Your task to perform on an android device: Open Wikipedia Image 0: 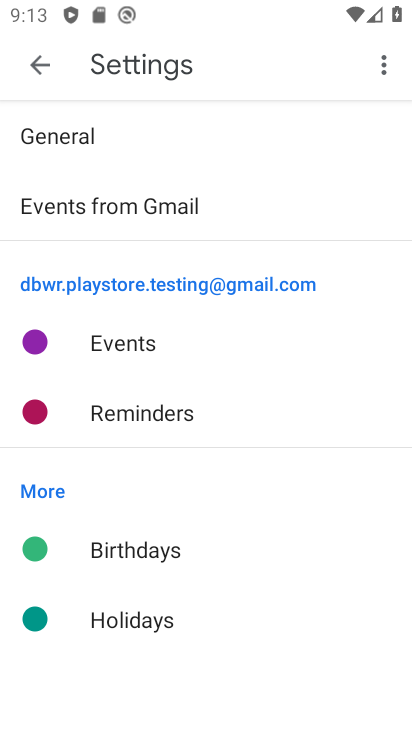
Step 0: press home button
Your task to perform on an android device: Open Wikipedia Image 1: 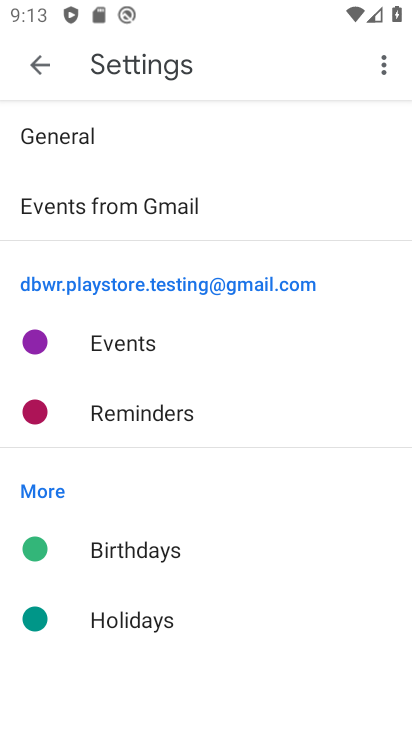
Step 1: press home button
Your task to perform on an android device: Open Wikipedia Image 2: 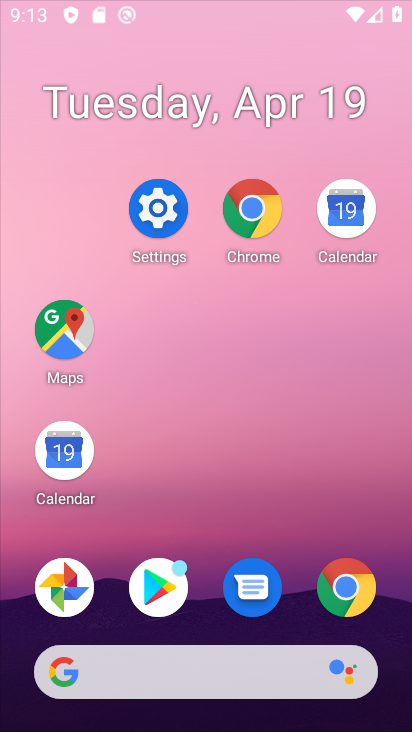
Step 2: press home button
Your task to perform on an android device: Open Wikipedia Image 3: 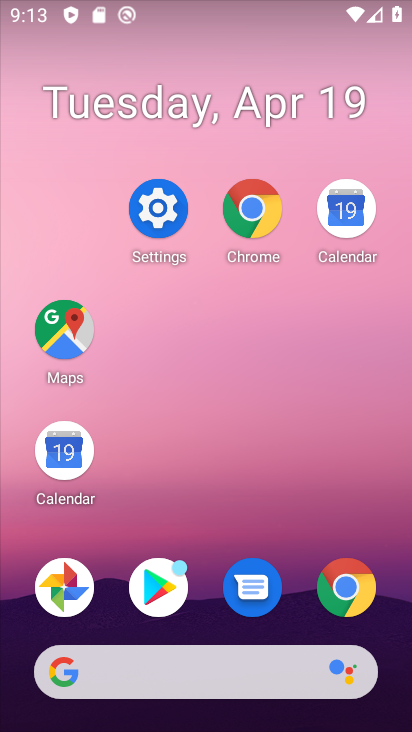
Step 3: press home button
Your task to perform on an android device: Open Wikipedia Image 4: 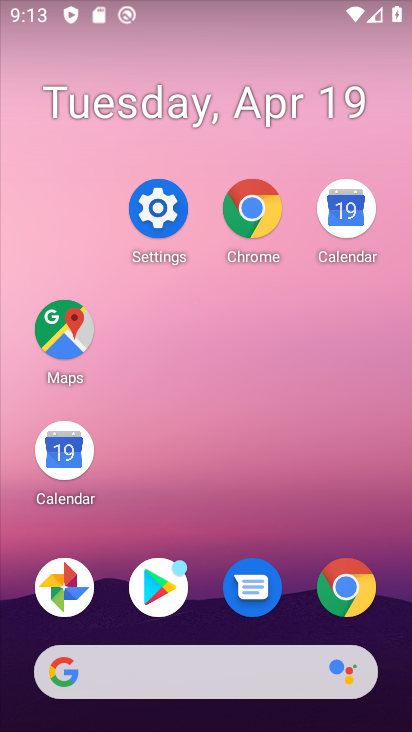
Step 4: drag from (240, 430) to (208, 177)
Your task to perform on an android device: Open Wikipedia Image 5: 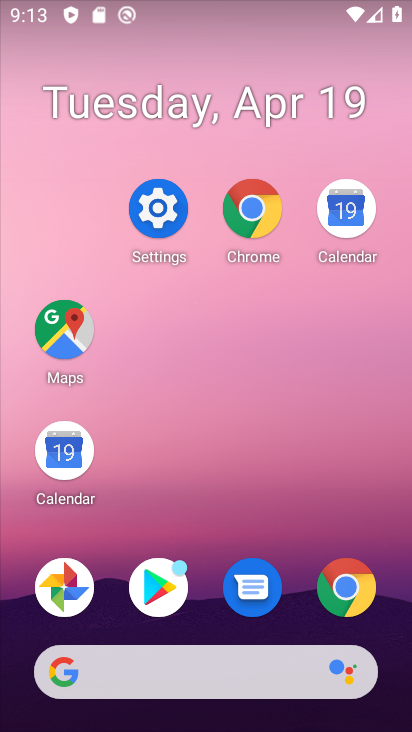
Step 5: drag from (202, 377) to (166, 233)
Your task to perform on an android device: Open Wikipedia Image 6: 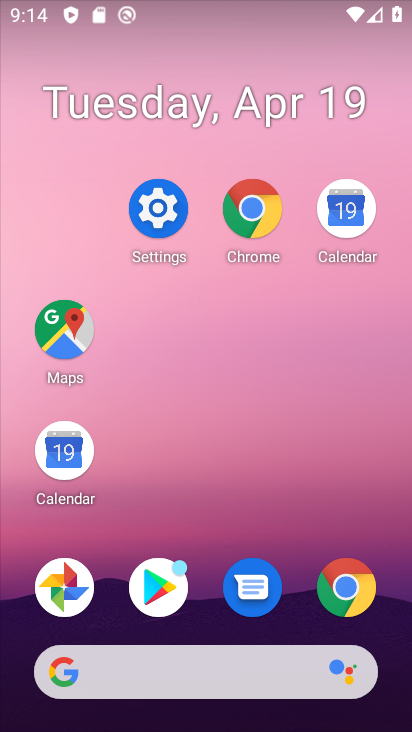
Step 6: click (255, 207)
Your task to perform on an android device: Open Wikipedia Image 7: 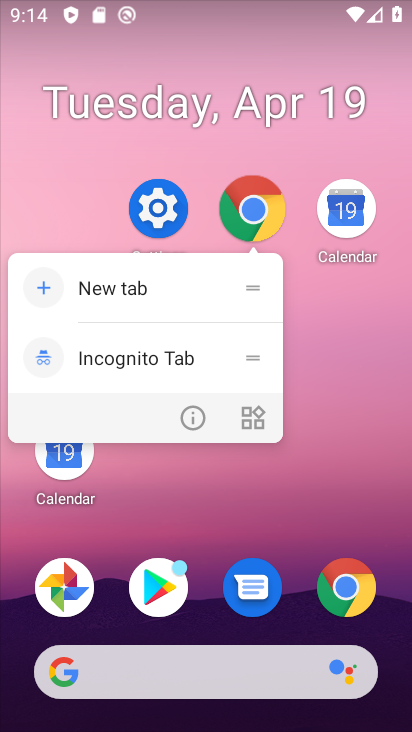
Step 7: click (255, 207)
Your task to perform on an android device: Open Wikipedia Image 8: 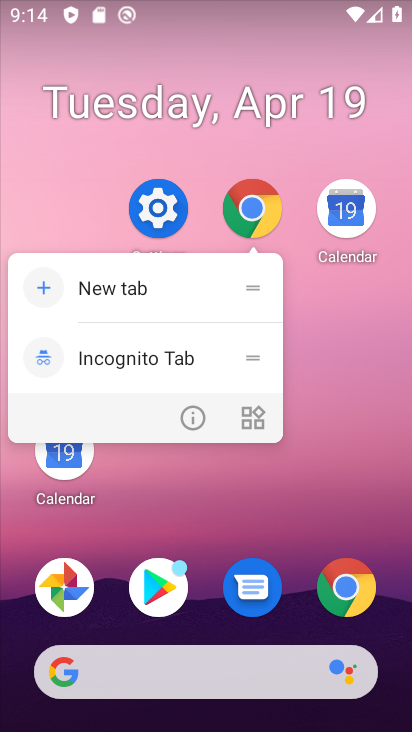
Step 8: click (258, 203)
Your task to perform on an android device: Open Wikipedia Image 9: 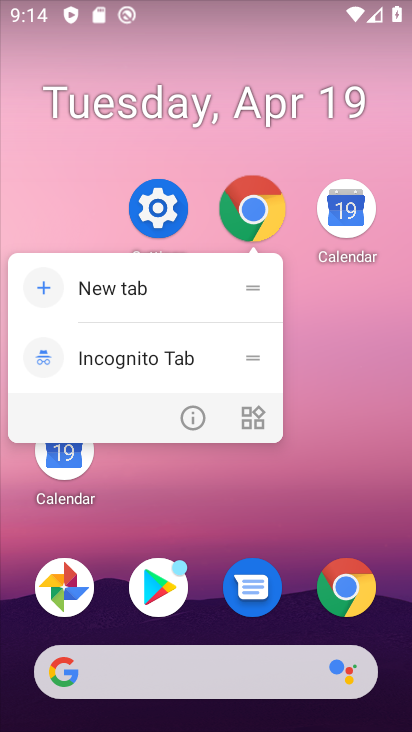
Step 9: click (261, 202)
Your task to perform on an android device: Open Wikipedia Image 10: 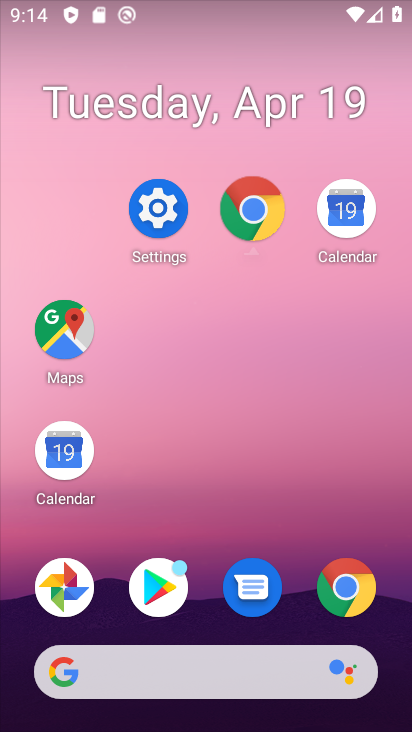
Step 10: click (261, 202)
Your task to perform on an android device: Open Wikipedia Image 11: 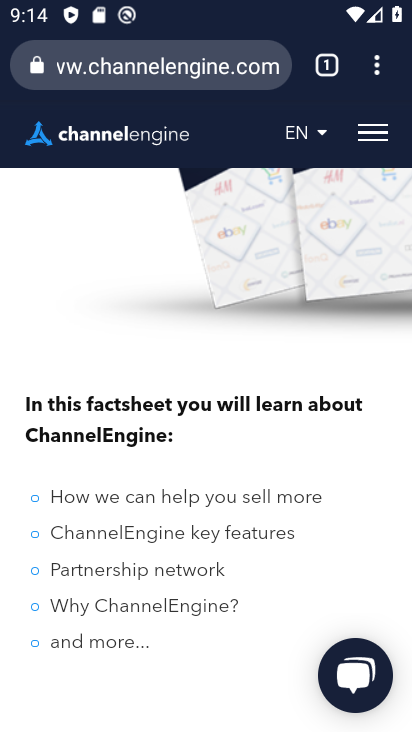
Step 11: press back button
Your task to perform on an android device: Open Wikipedia Image 12: 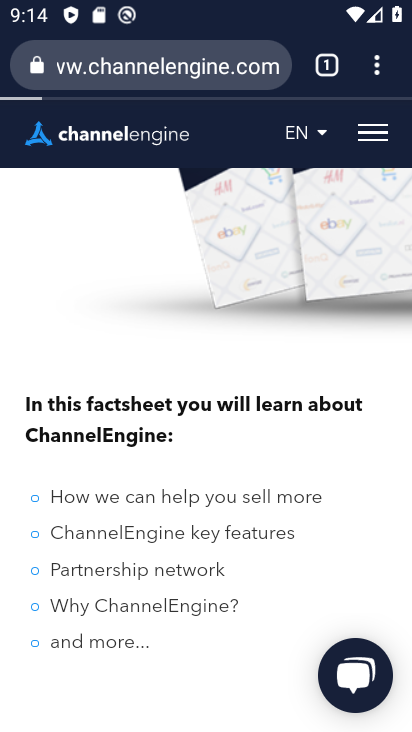
Step 12: press back button
Your task to perform on an android device: Open Wikipedia Image 13: 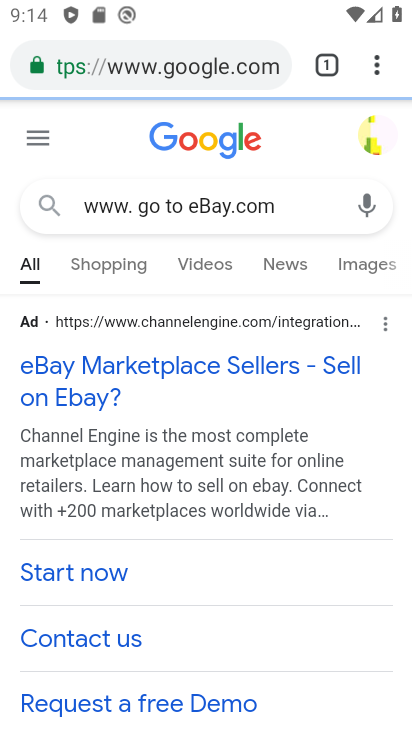
Step 13: press back button
Your task to perform on an android device: Open Wikipedia Image 14: 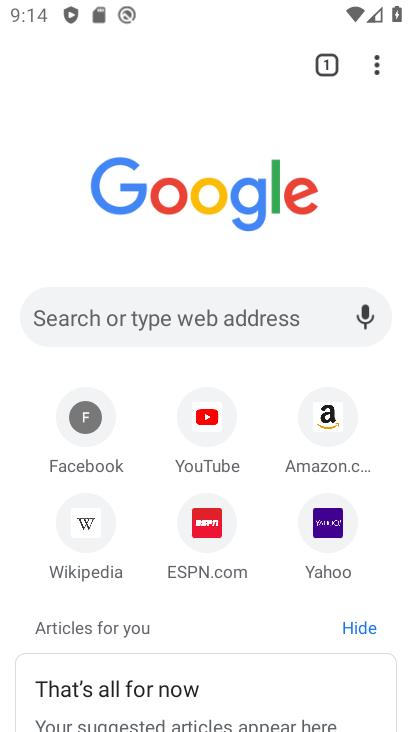
Step 14: press back button
Your task to perform on an android device: Open Wikipedia Image 15: 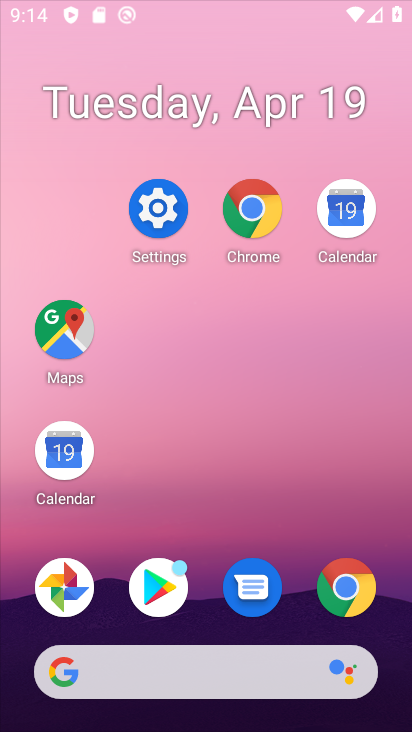
Step 15: press back button
Your task to perform on an android device: Open Wikipedia Image 16: 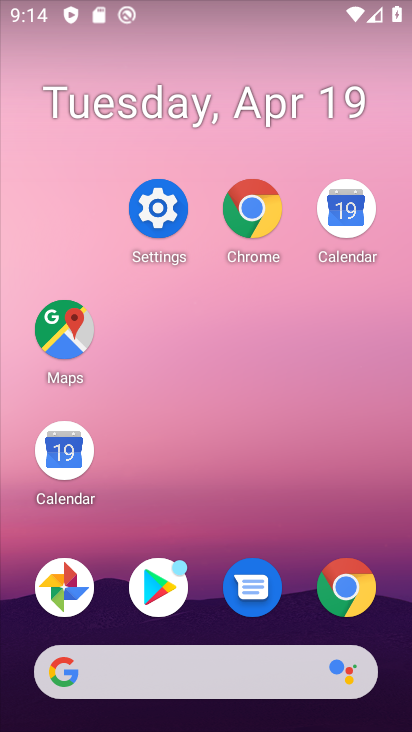
Step 16: drag from (332, 630) to (109, 97)
Your task to perform on an android device: Open Wikipedia Image 17: 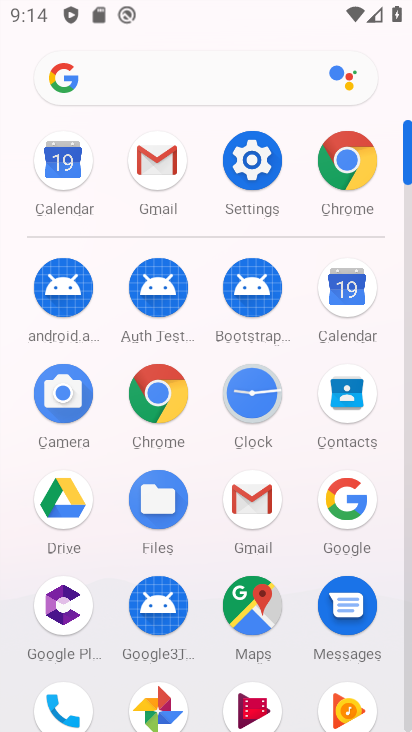
Step 17: click (351, 151)
Your task to perform on an android device: Open Wikipedia Image 18: 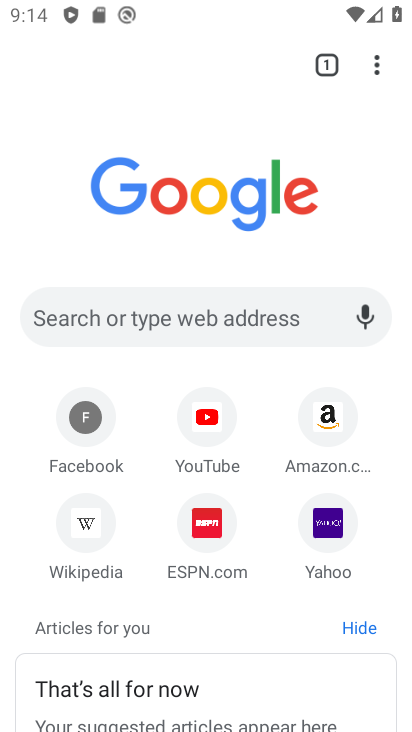
Step 18: click (80, 517)
Your task to perform on an android device: Open Wikipedia Image 19: 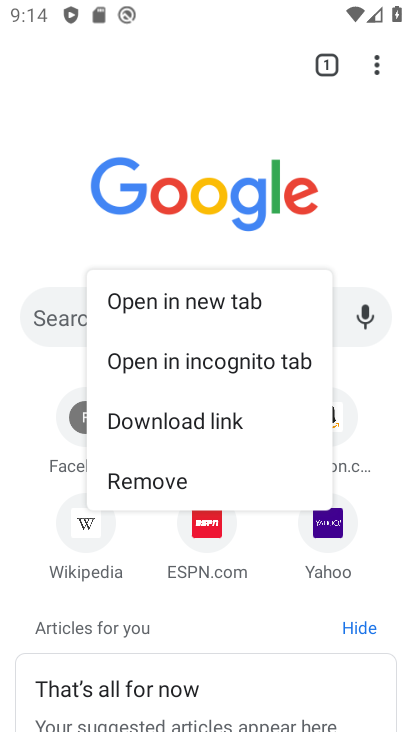
Step 19: click (82, 515)
Your task to perform on an android device: Open Wikipedia Image 20: 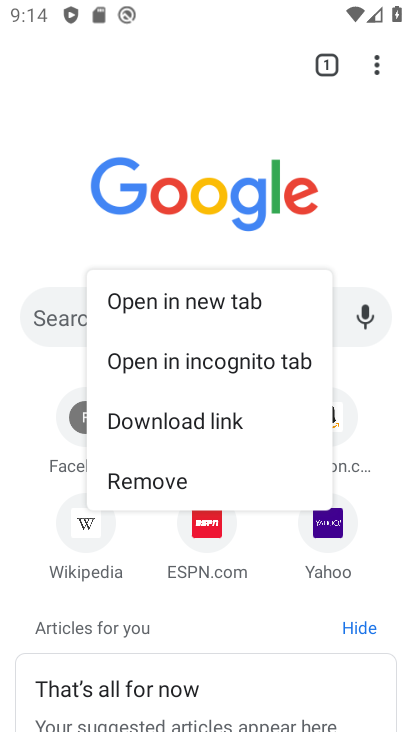
Step 20: click (84, 514)
Your task to perform on an android device: Open Wikipedia Image 21: 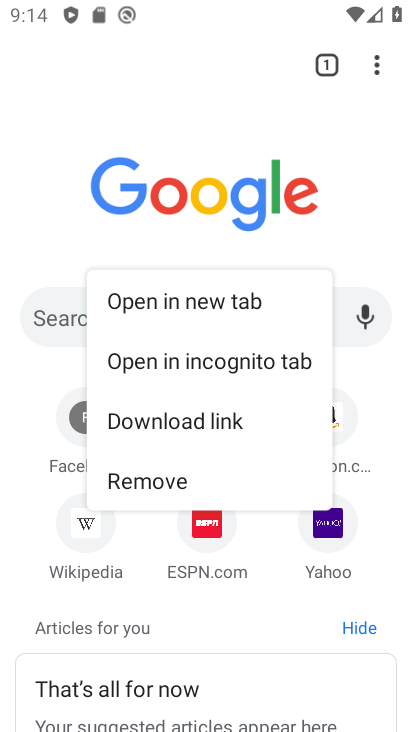
Step 21: click (84, 513)
Your task to perform on an android device: Open Wikipedia Image 22: 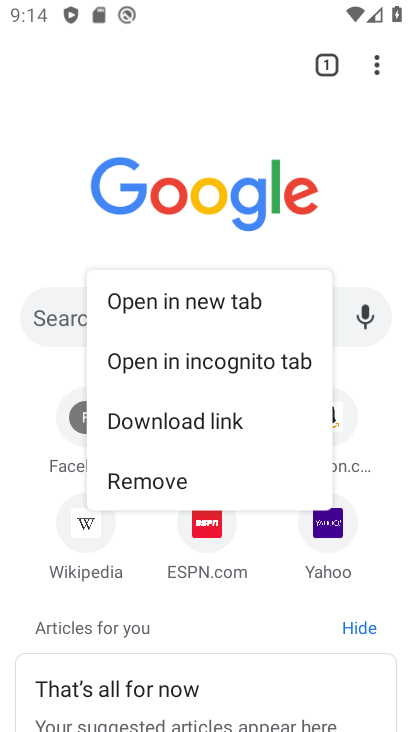
Step 22: click (84, 513)
Your task to perform on an android device: Open Wikipedia Image 23: 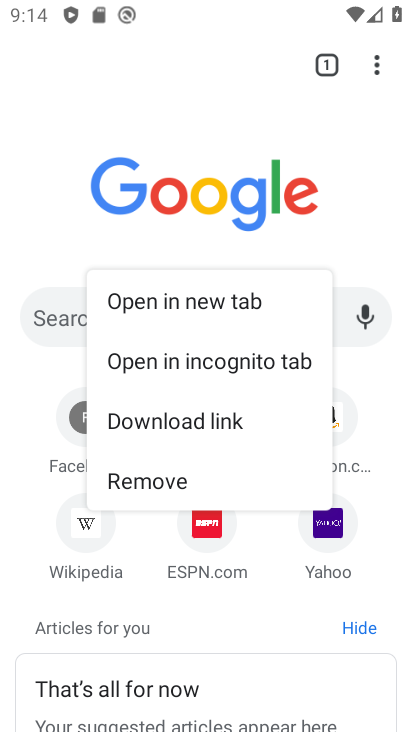
Step 23: click (84, 513)
Your task to perform on an android device: Open Wikipedia Image 24: 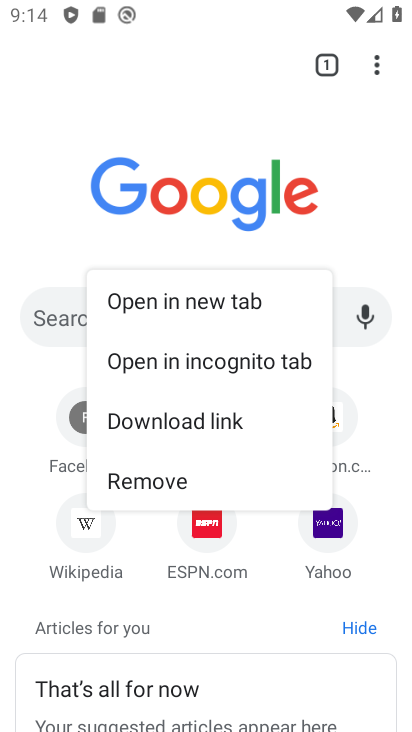
Step 24: click (84, 512)
Your task to perform on an android device: Open Wikipedia Image 25: 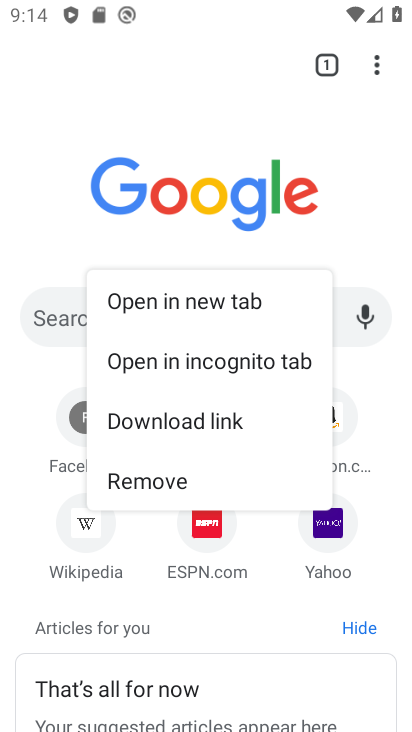
Step 25: click (84, 512)
Your task to perform on an android device: Open Wikipedia Image 26: 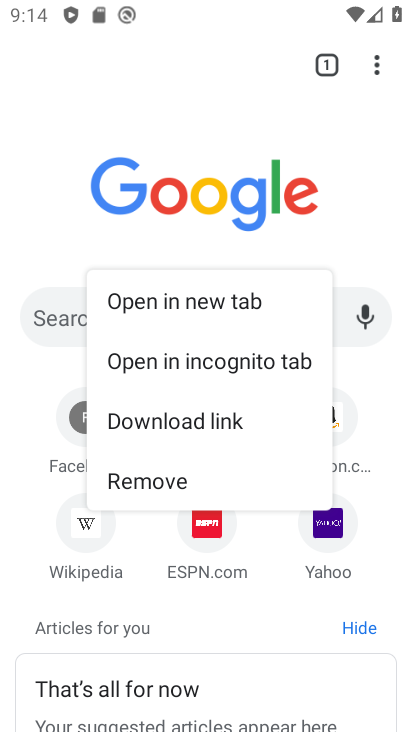
Step 26: click (84, 512)
Your task to perform on an android device: Open Wikipedia Image 27: 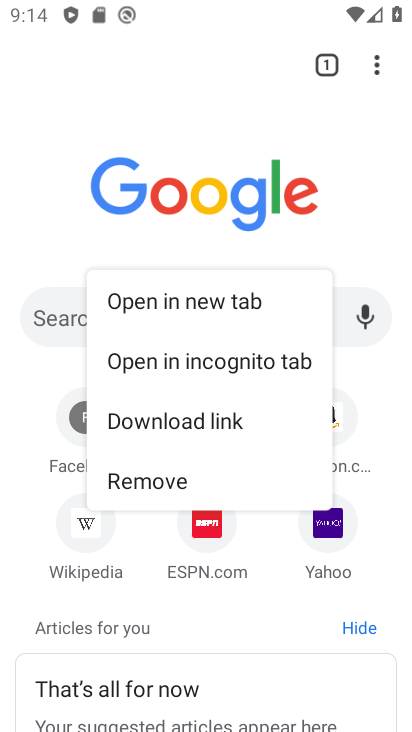
Step 27: click (84, 512)
Your task to perform on an android device: Open Wikipedia Image 28: 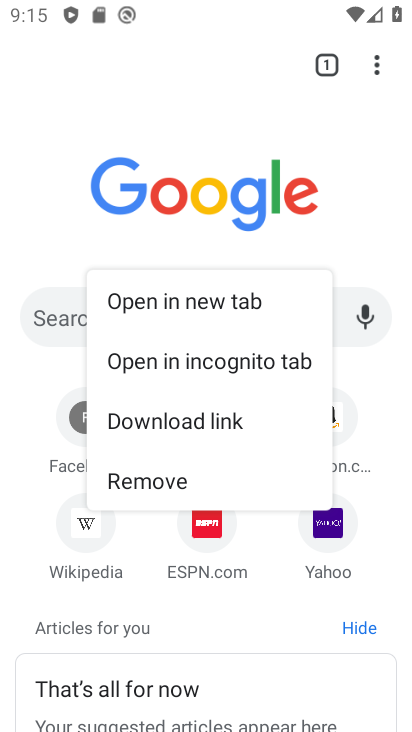
Step 28: click (85, 526)
Your task to perform on an android device: Open Wikipedia Image 29: 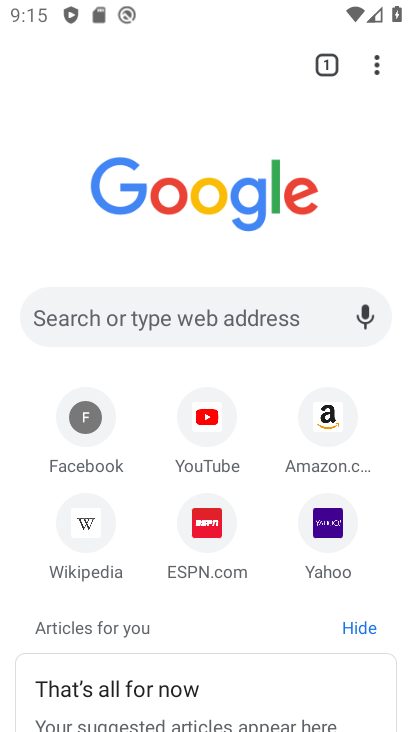
Step 29: click (85, 526)
Your task to perform on an android device: Open Wikipedia Image 30: 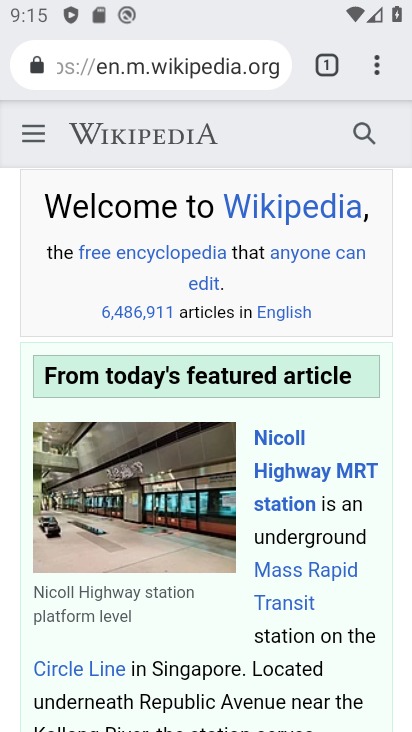
Step 30: task complete